Your task to perform on an android device: Open privacy settings Image 0: 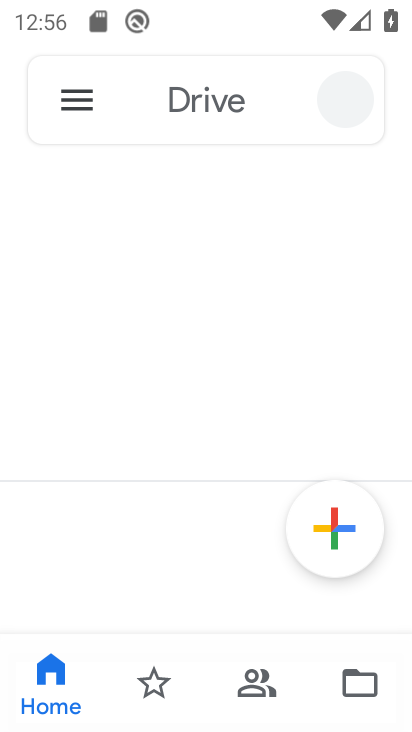
Step 0: drag from (322, 572) to (328, 233)
Your task to perform on an android device: Open privacy settings Image 1: 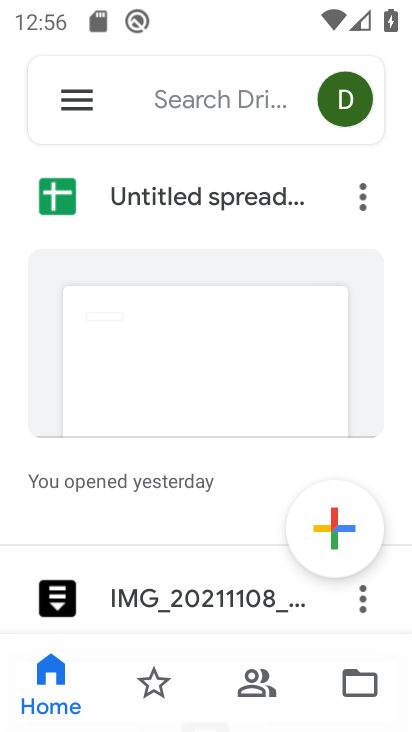
Step 1: press home button
Your task to perform on an android device: Open privacy settings Image 2: 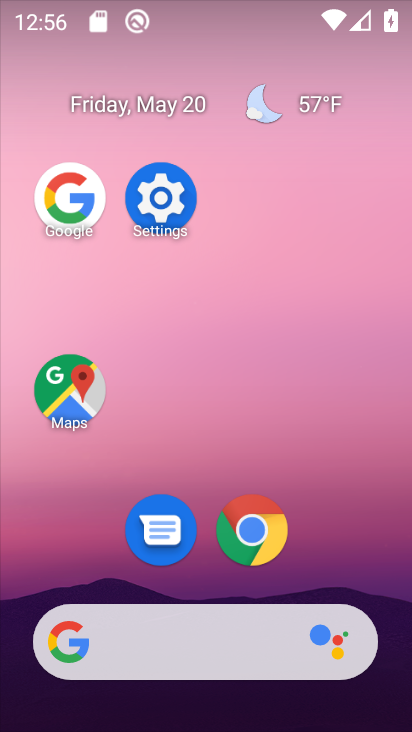
Step 2: click (139, 212)
Your task to perform on an android device: Open privacy settings Image 3: 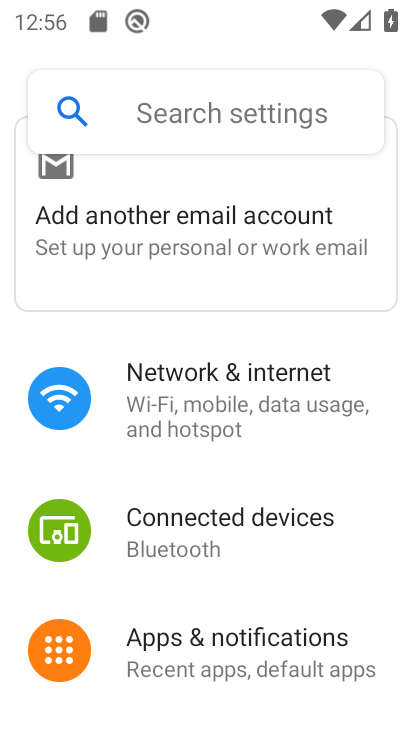
Step 3: drag from (248, 606) to (238, 214)
Your task to perform on an android device: Open privacy settings Image 4: 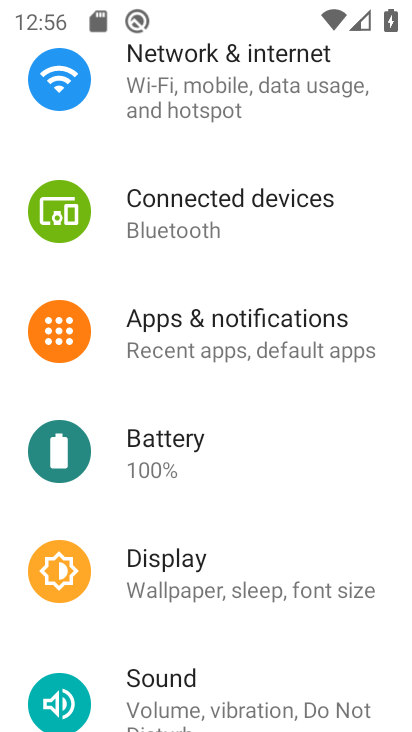
Step 4: drag from (274, 518) to (236, 169)
Your task to perform on an android device: Open privacy settings Image 5: 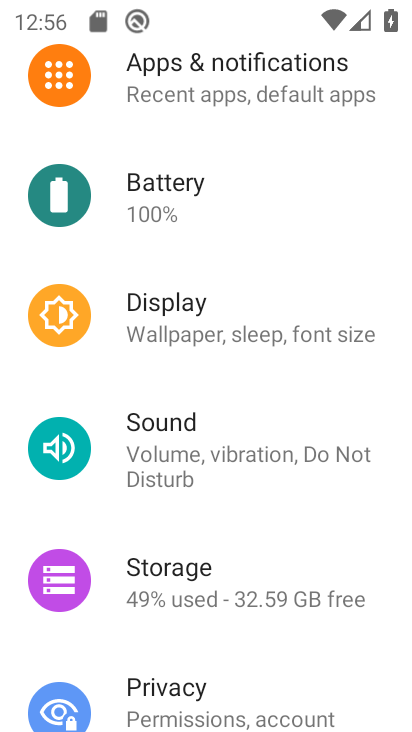
Step 5: click (182, 683)
Your task to perform on an android device: Open privacy settings Image 6: 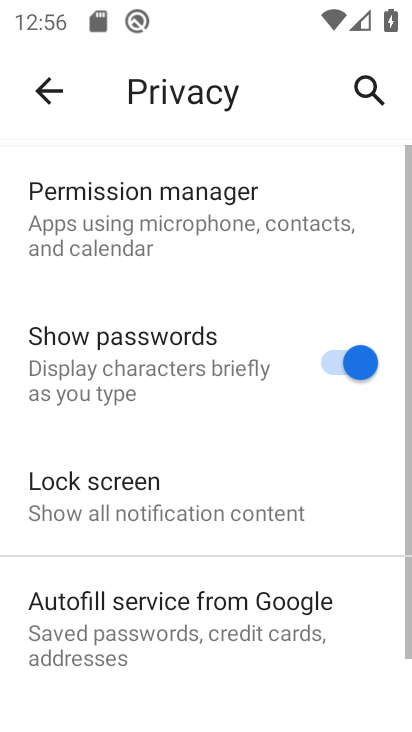
Step 6: task complete